Your task to perform on an android device: Go to network settings Image 0: 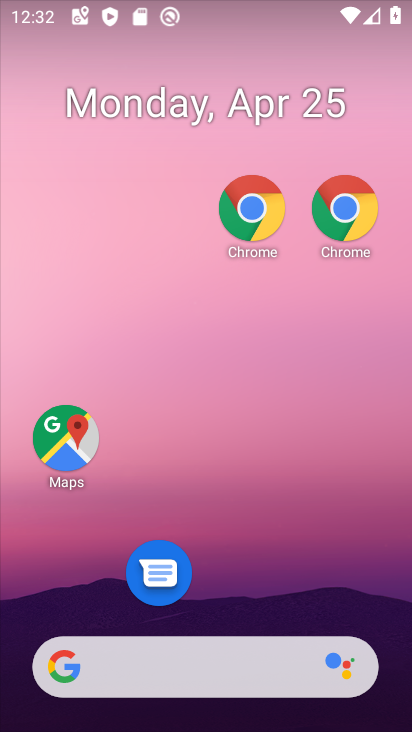
Step 0: click (228, 81)
Your task to perform on an android device: Go to network settings Image 1: 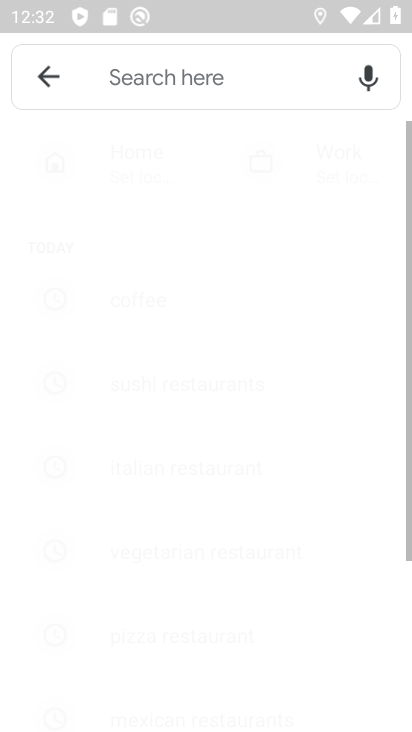
Step 1: press home button
Your task to perform on an android device: Go to network settings Image 2: 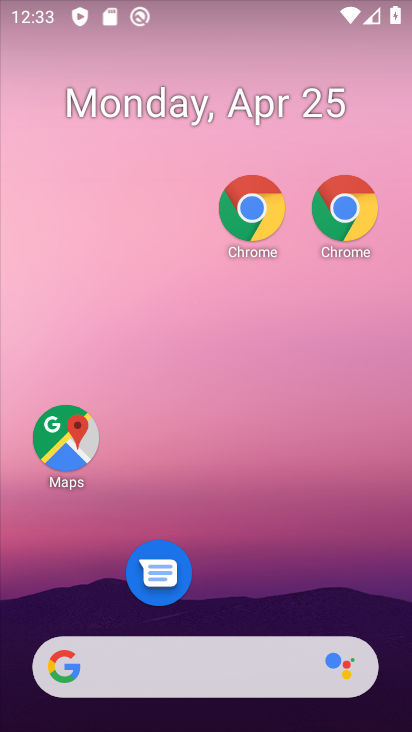
Step 2: drag from (294, 648) to (102, 8)
Your task to perform on an android device: Go to network settings Image 3: 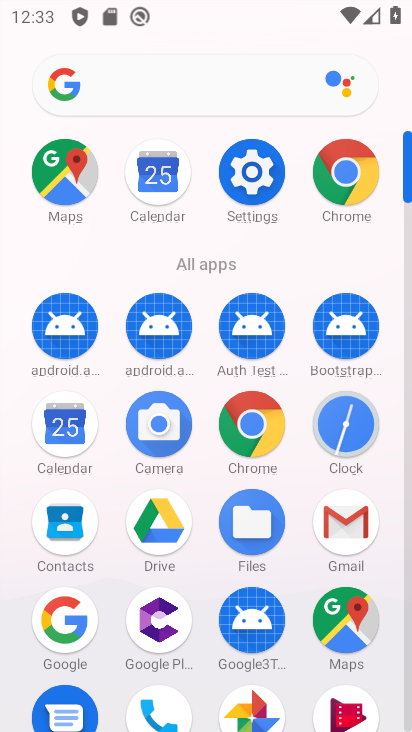
Step 3: click (252, 172)
Your task to perform on an android device: Go to network settings Image 4: 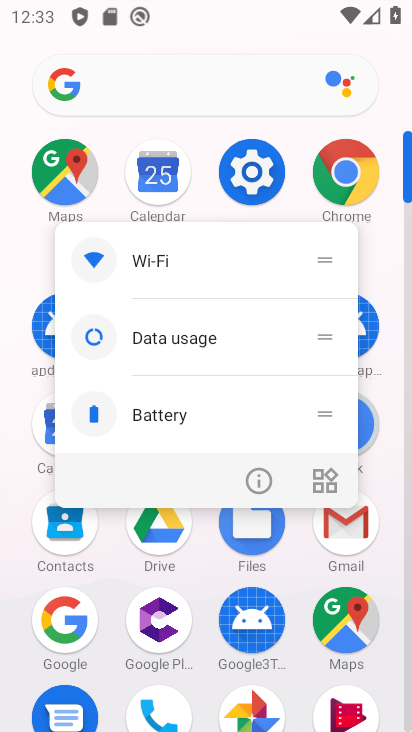
Step 4: click (250, 172)
Your task to perform on an android device: Go to network settings Image 5: 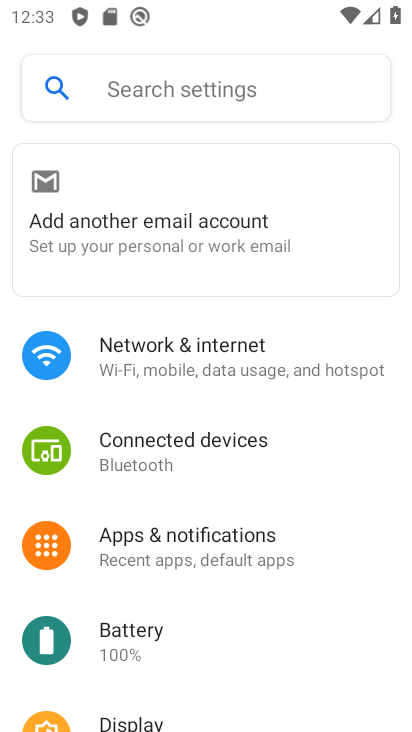
Step 5: click (252, 163)
Your task to perform on an android device: Go to network settings Image 6: 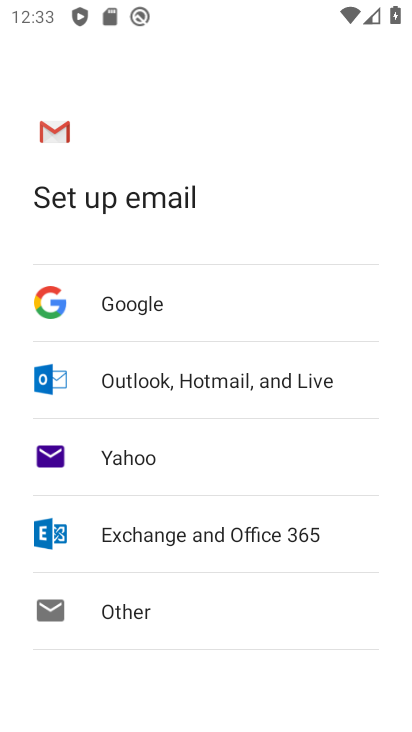
Step 6: press back button
Your task to perform on an android device: Go to network settings Image 7: 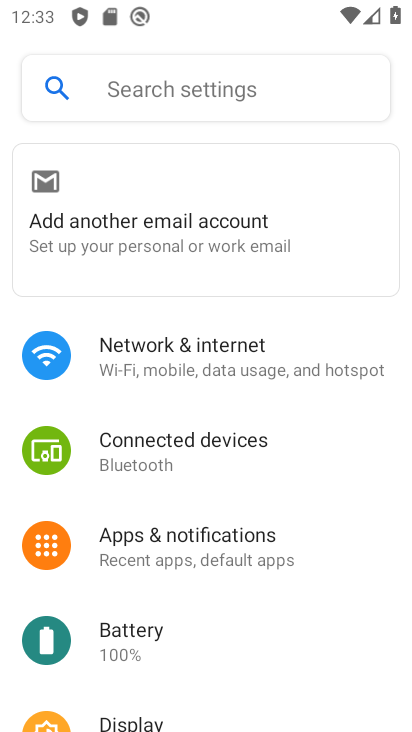
Step 7: click (187, 363)
Your task to perform on an android device: Go to network settings Image 8: 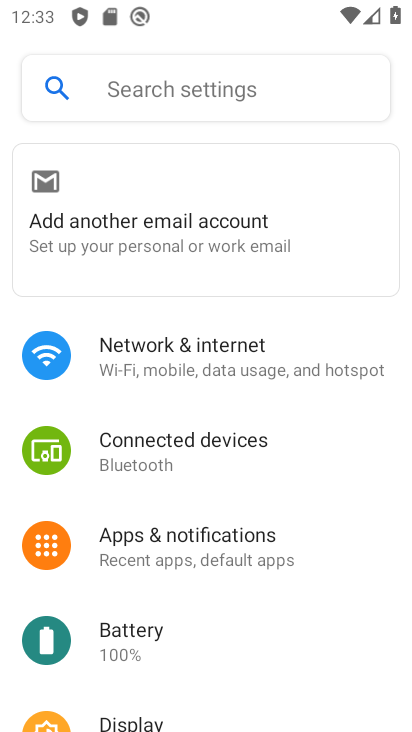
Step 8: click (187, 363)
Your task to perform on an android device: Go to network settings Image 9: 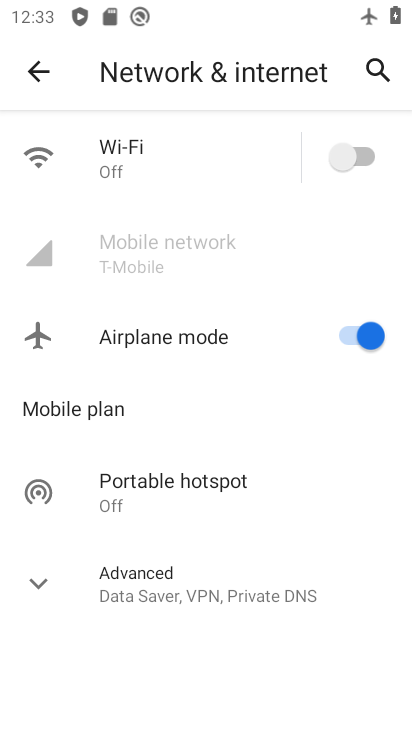
Step 9: task complete